Your task to perform on an android device: set the stopwatch Image 0: 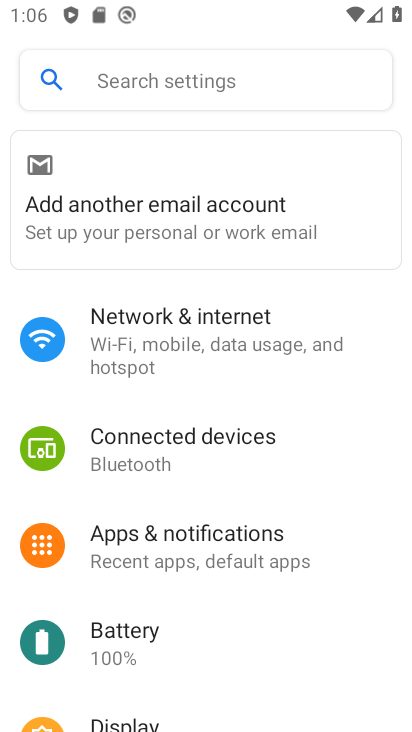
Step 0: press home button
Your task to perform on an android device: set the stopwatch Image 1: 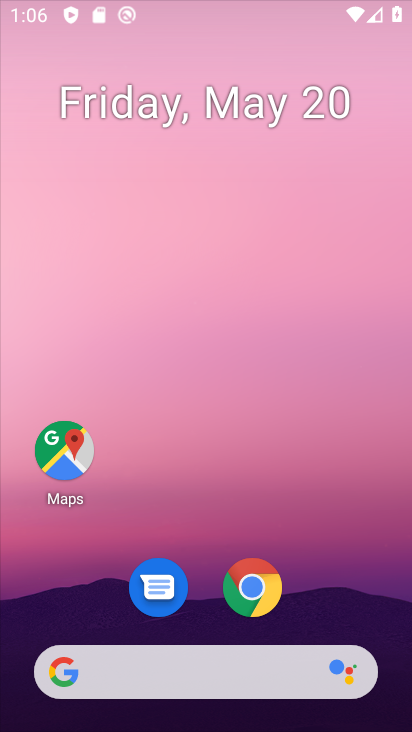
Step 1: drag from (313, 515) to (294, 123)
Your task to perform on an android device: set the stopwatch Image 2: 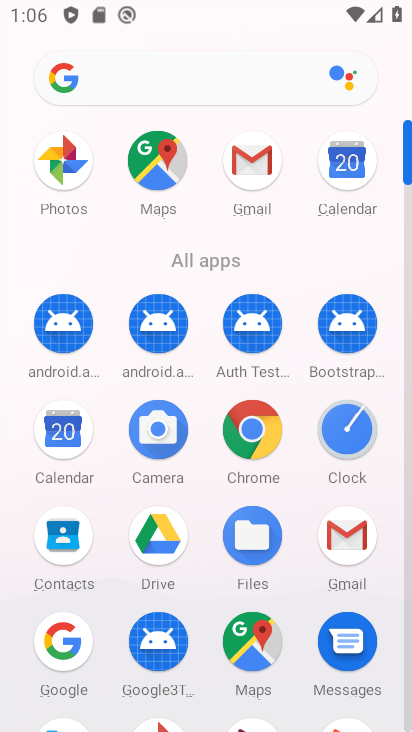
Step 2: click (355, 432)
Your task to perform on an android device: set the stopwatch Image 3: 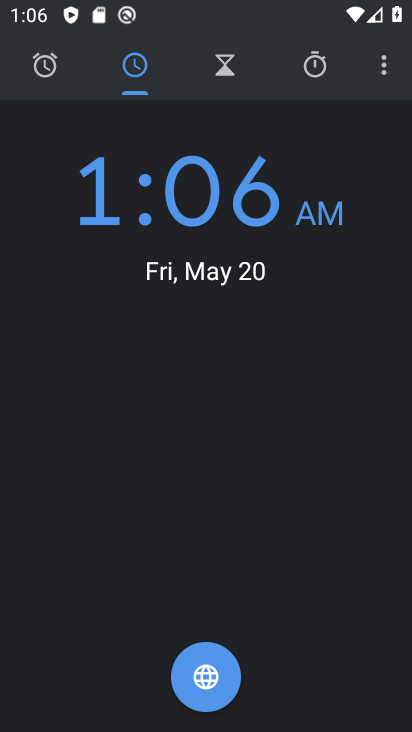
Step 3: click (316, 65)
Your task to perform on an android device: set the stopwatch Image 4: 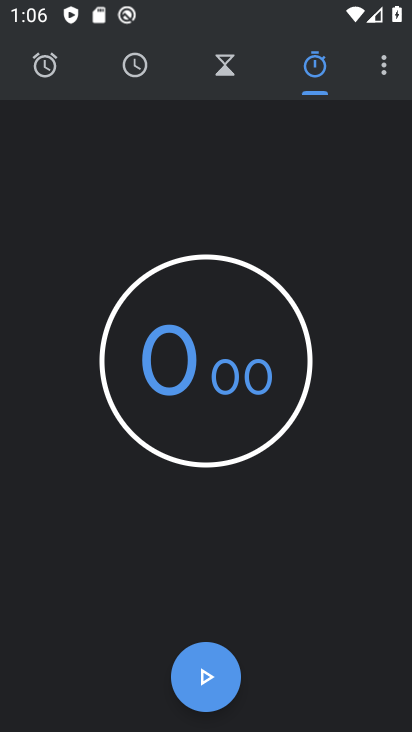
Step 4: click (204, 672)
Your task to perform on an android device: set the stopwatch Image 5: 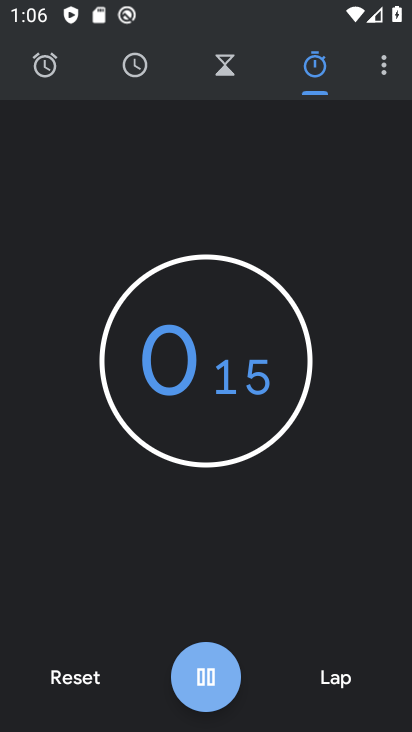
Step 5: click (204, 669)
Your task to perform on an android device: set the stopwatch Image 6: 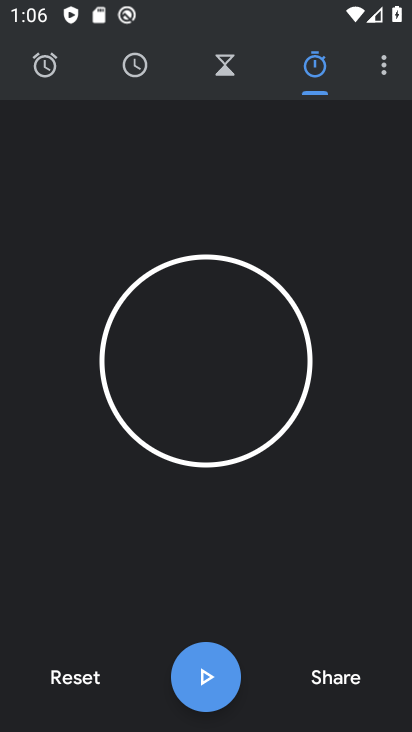
Step 6: task complete